Your task to perform on an android device: Open the phone app and click the voicemail tab. Image 0: 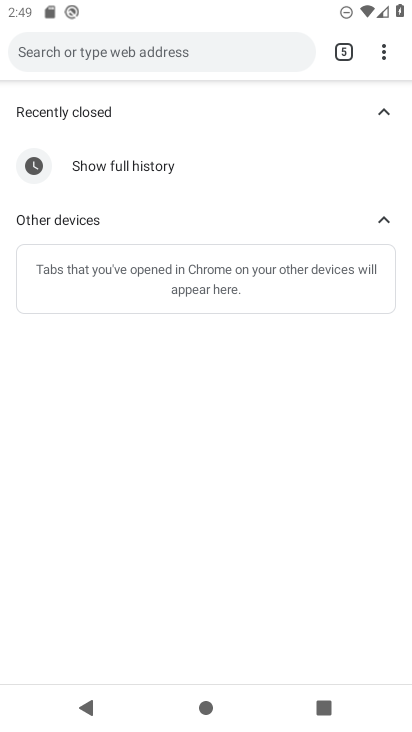
Step 0: press home button
Your task to perform on an android device: Open the phone app and click the voicemail tab. Image 1: 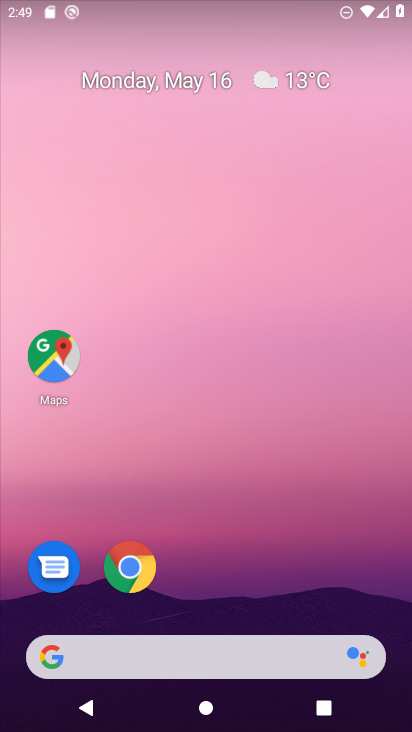
Step 1: drag from (301, 585) to (320, 119)
Your task to perform on an android device: Open the phone app and click the voicemail tab. Image 2: 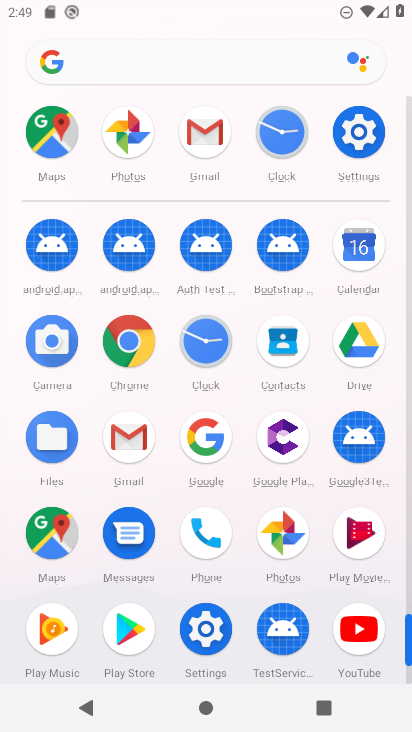
Step 2: click (218, 515)
Your task to perform on an android device: Open the phone app and click the voicemail tab. Image 3: 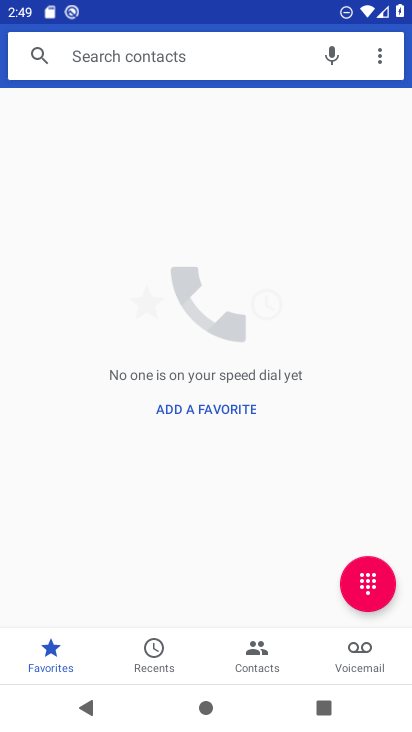
Step 3: click (369, 649)
Your task to perform on an android device: Open the phone app and click the voicemail tab. Image 4: 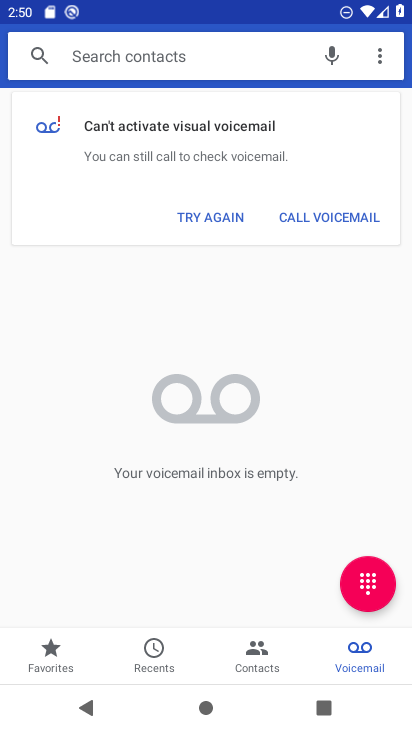
Step 4: task complete